Your task to perform on an android device: change the clock display to show seconds Image 0: 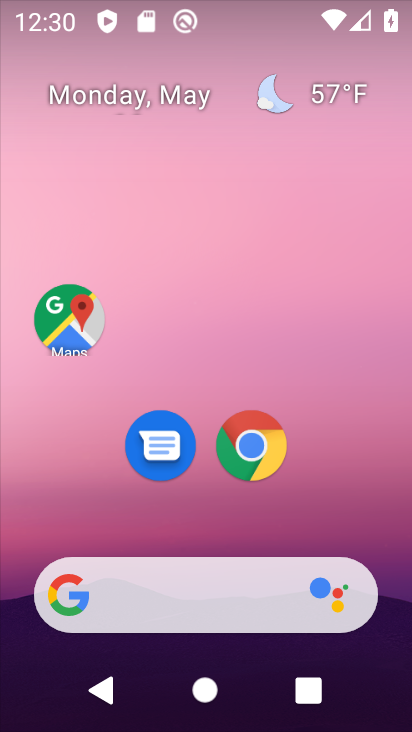
Step 0: drag from (394, 603) to (247, 99)
Your task to perform on an android device: change the clock display to show seconds Image 1: 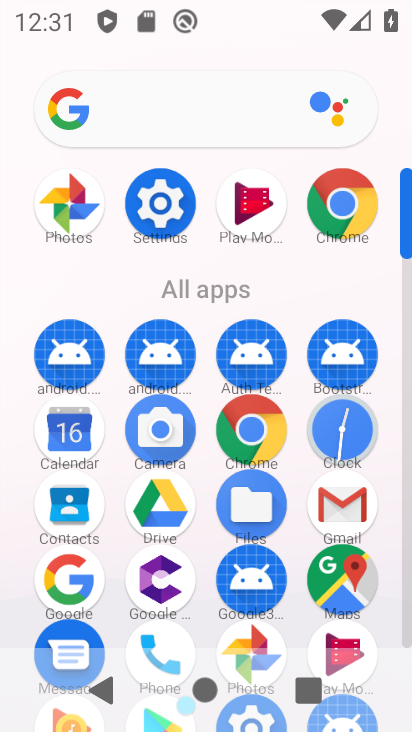
Step 1: click (187, 208)
Your task to perform on an android device: change the clock display to show seconds Image 2: 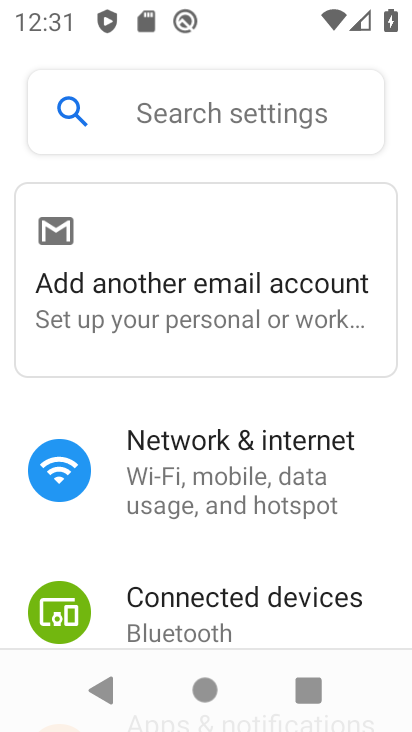
Step 2: press home button
Your task to perform on an android device: change the clock display to show seconds Image 3: 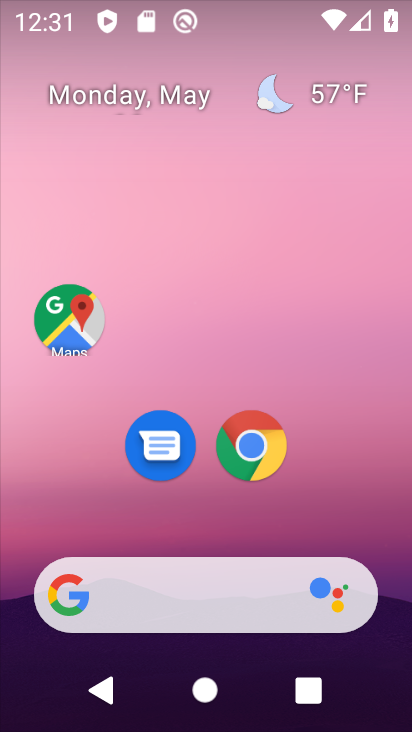
Step 3: drag from (383, 538) to (301, 39)
Your task to perform on an android device: change the clock display to show seconds Image 4: 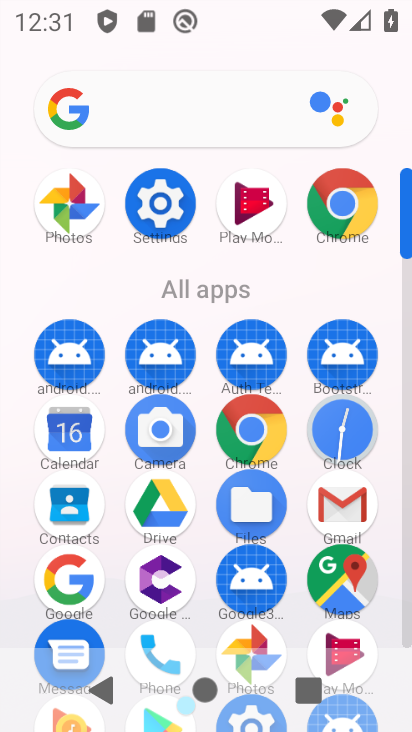
Step 4: click (351, 441)
Your task to perform on an android device: change the clock display to show seconds Image 5: 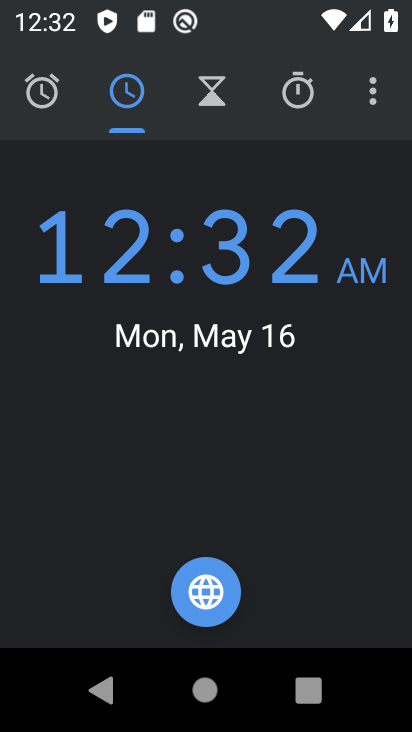
Step 5: click (392, 99)
Your task to perform on an android device: change the clock display to show seconds Image 6: 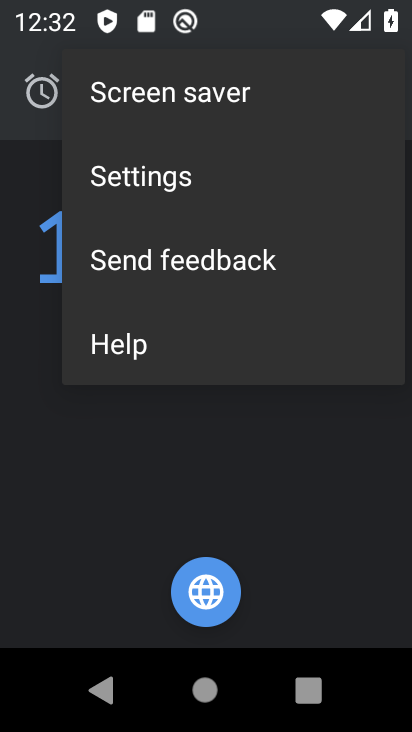
Step 6: click (194, 169)
Your task to perform on an android device: change the clock display to show seconds Image 7: 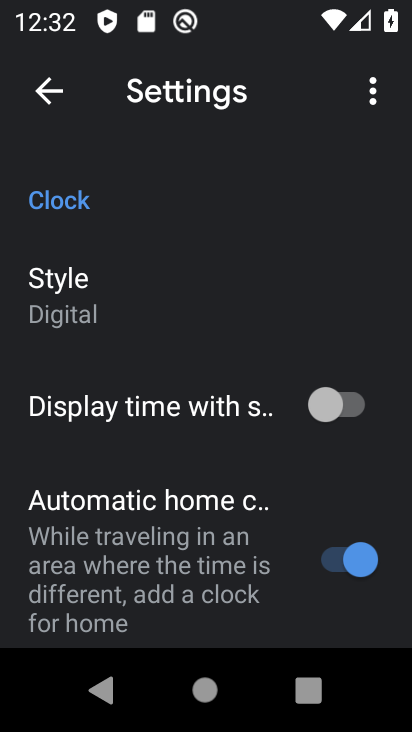
Step 7: click (333, 422)
Your task to perform on an android device: change the clock display to show seconds Image 8: 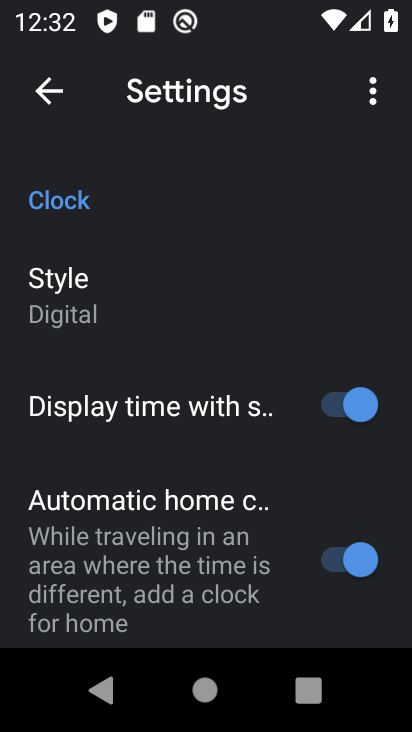
Step 8: task complete